Your task to perform on an android device: Is it going to rain today? Image 0: 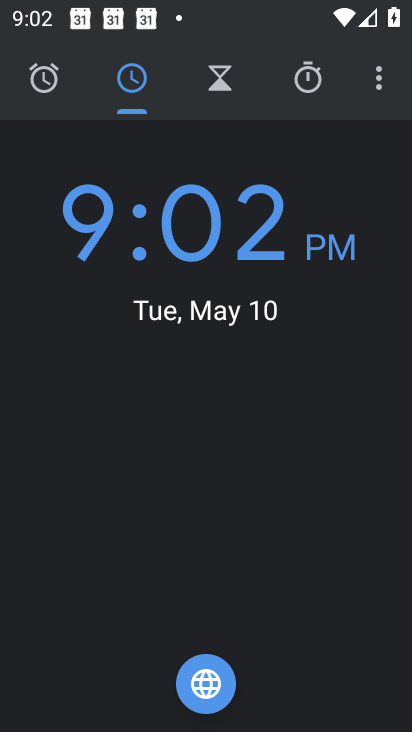
Step 0: press back button
Your task to perform on an android device: Is it going to rain today? Image 1: 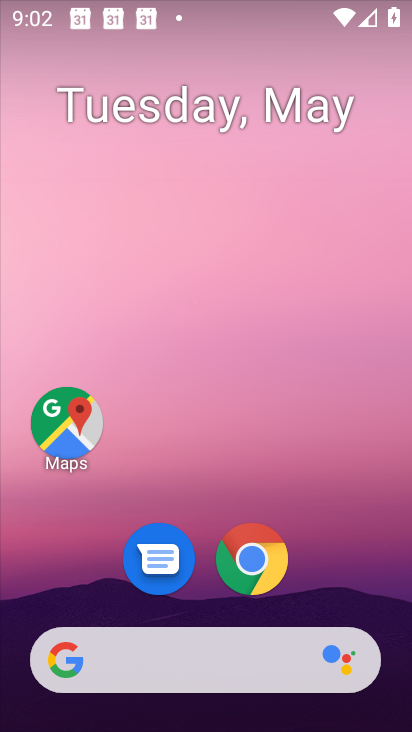
Step 1: drag from (329, 532) to (281, 63)
Your task to perform on an android device: Is it going to rain today? Image 2: 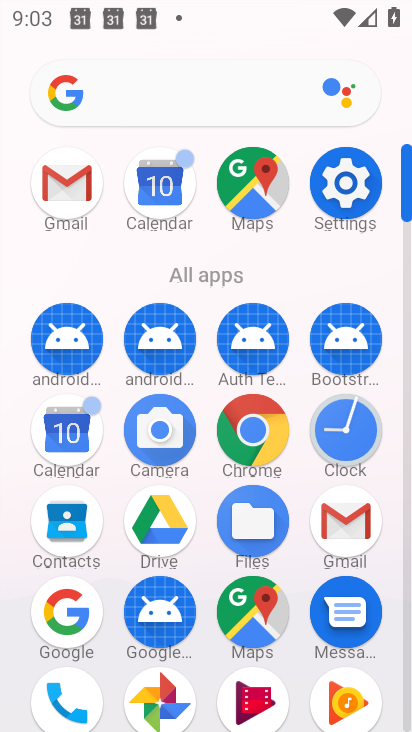
Step 2: click (61, 612)
Your task to perform on an android device: Is it going to rain today? Image 3: 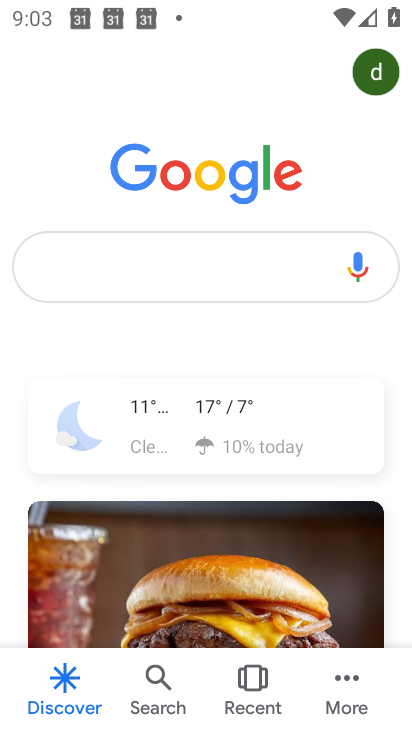
Step 3: click (231, 446)
Your task to perform on an android device: Is it going to rain today? Image 4: 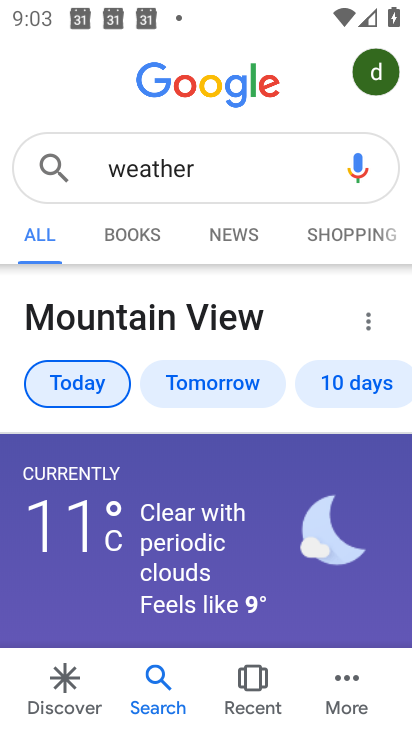
Step 4: task complete